Your task to perform on an android device: Add "rayovac triple a" to the cart on bestbuy.com Image 0: 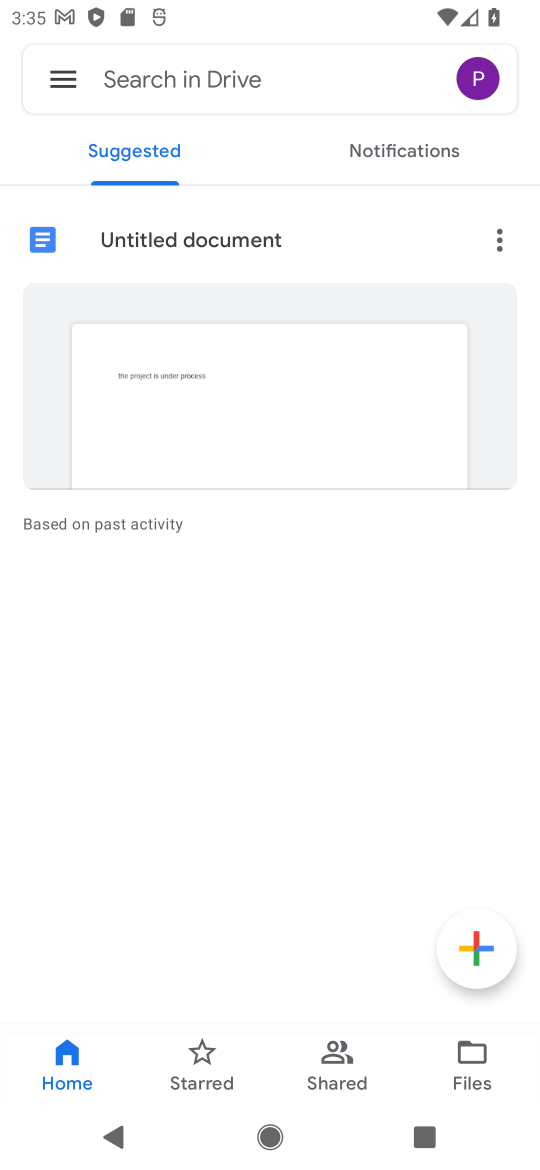
Step 0: press home button
Your task to perform on an android device: Add "rayovac triple a" to the cart on bestbuy.com Image 1: 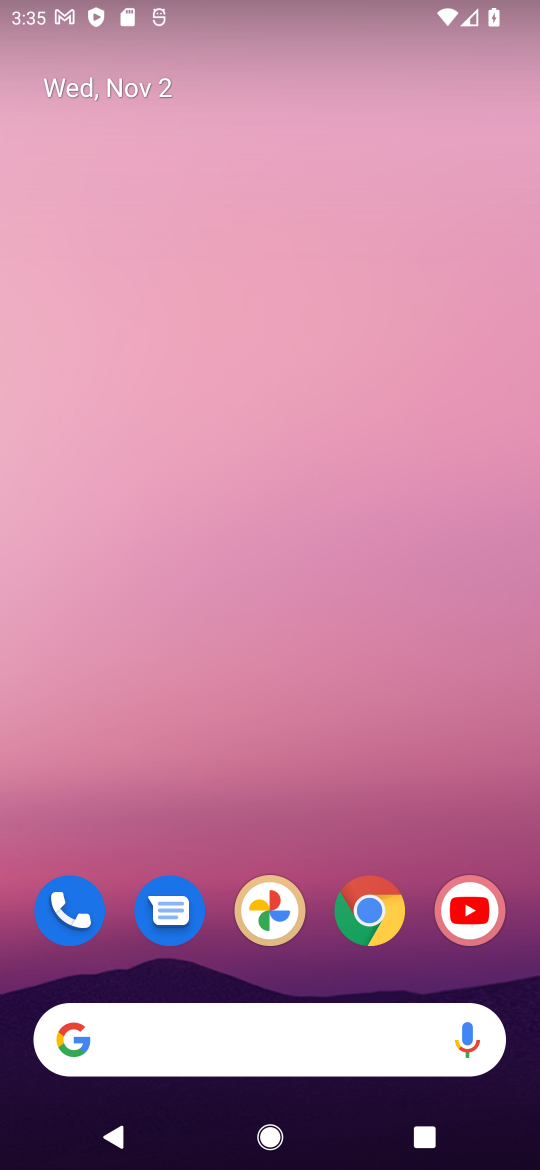
Step 1: click (363, 900)
Your task to perform on an android device: Add "rayovac triple a" to the cart on bestbuy.com Image 2: 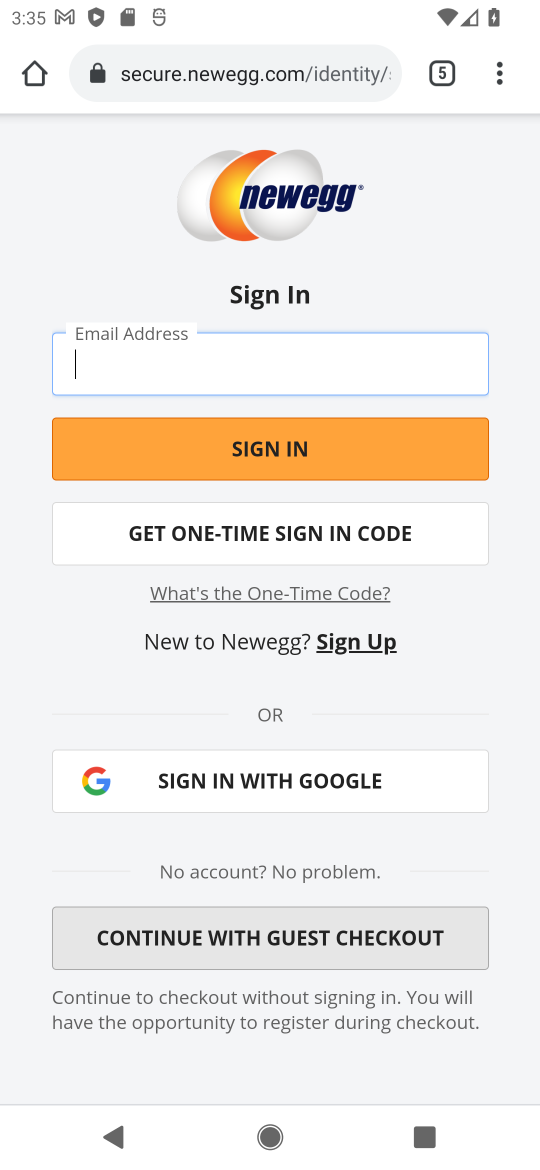
Step 2: click (444, 76)
Your task to perform on an android device: Add "rayovac triple a" to the cart on bestbuy.com Image 3: 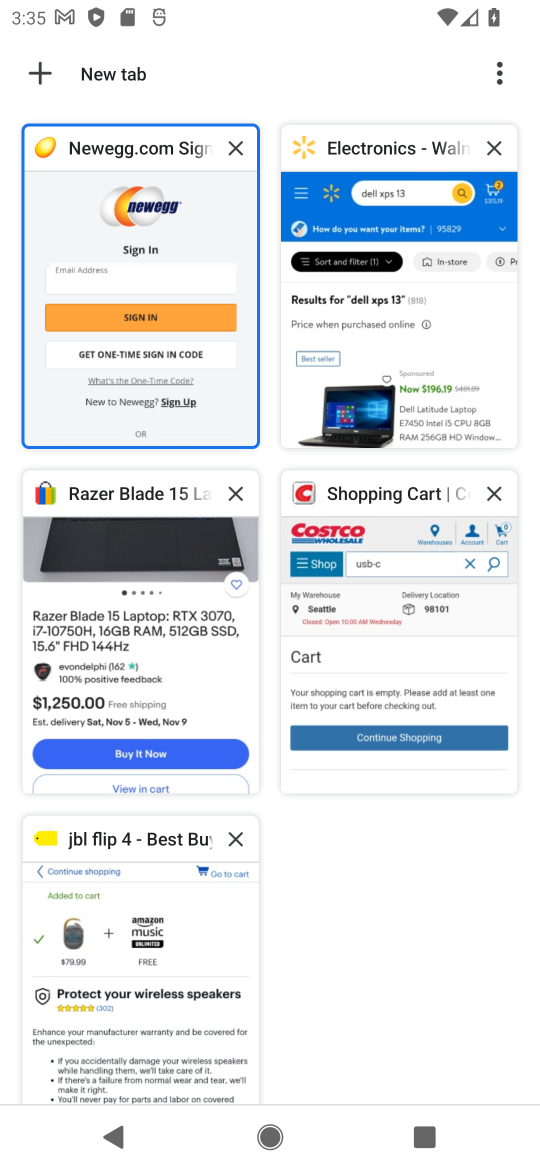
Step 3: click (121, 900)
Your task to perform on an android device: Add "rayovac triple a" to the cart on bestbuy.com Image 4: 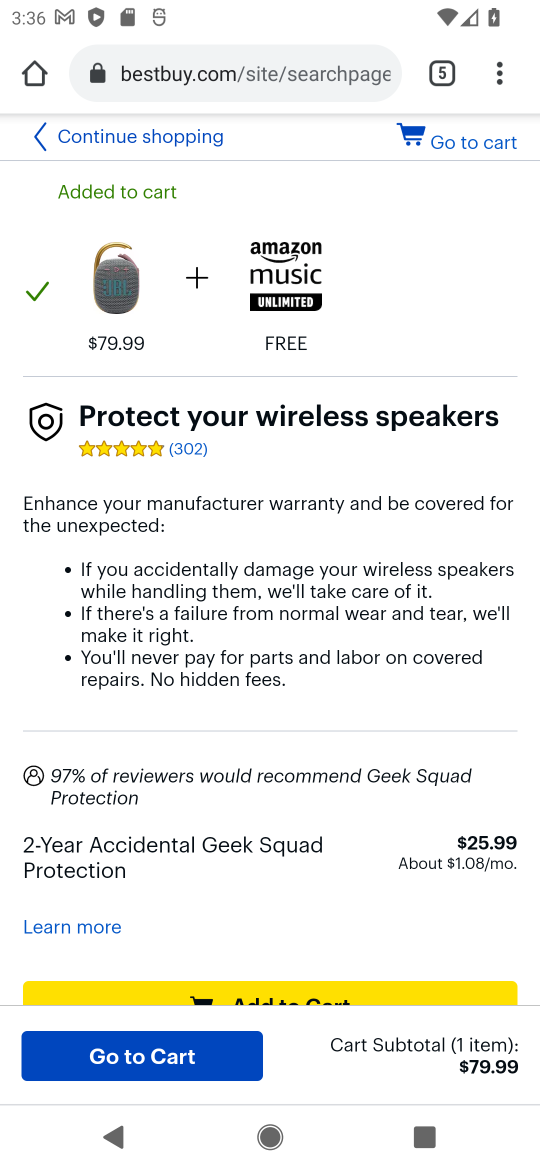
Step 4: click (166, 137)
Your task to perform on an android device: Add "rayovac triple a" to the cart on bestbuy.com Image 5: 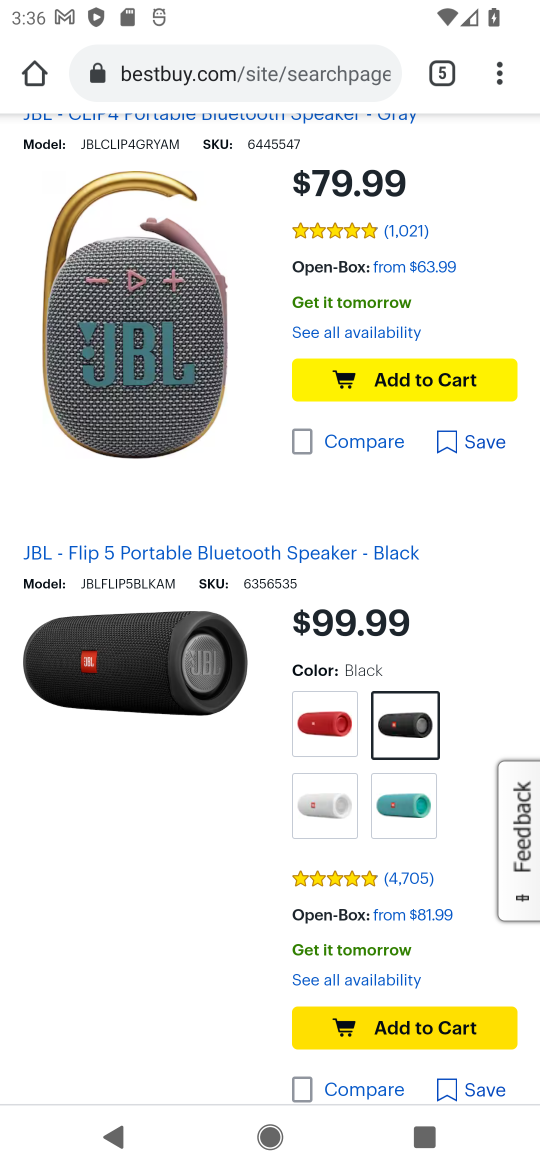
Step 5: drag from (472, 188) to (406, 1147)
Your task to perform on an android device: Add "rayovac triple a" to the cart on bestbuy.com Image 6: 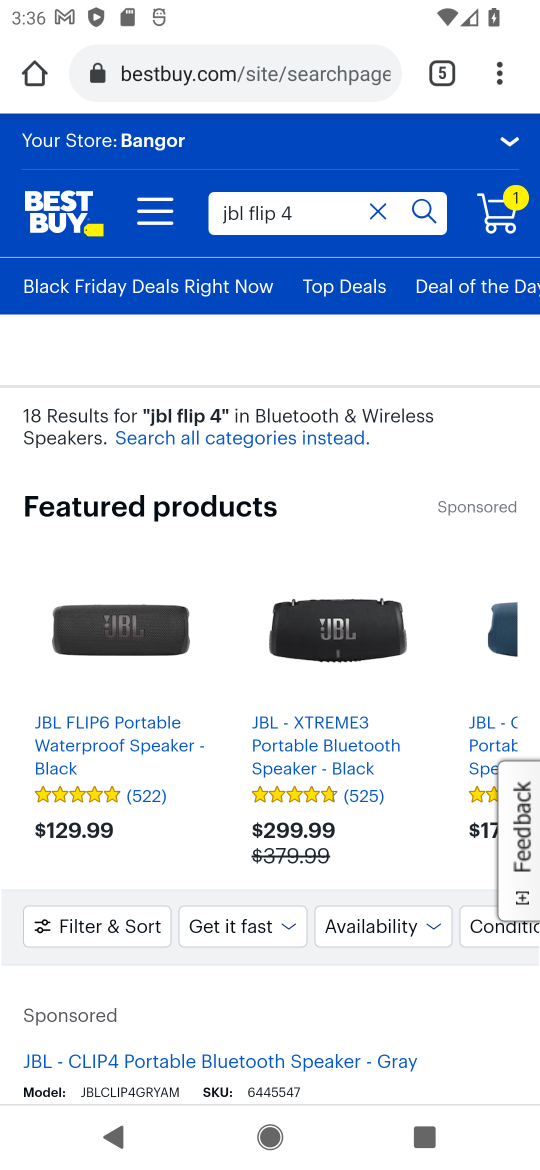
Step 6: click (378, 210)
Your task to perform on an android device: Add "rayovac triple a" to the cart on bestbuy.com Image 7: 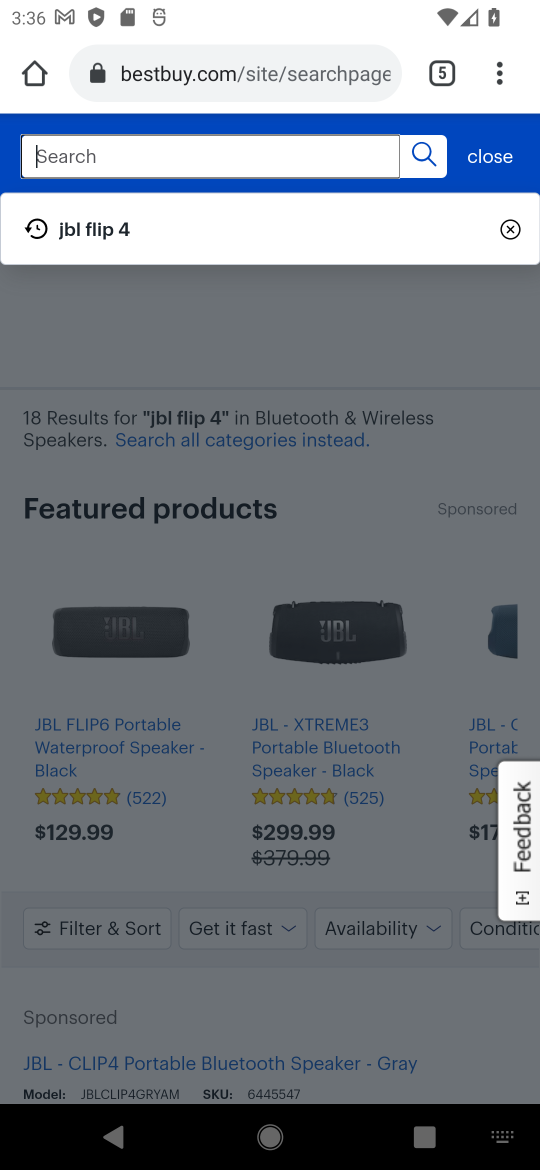
Step 7: type "rayovac triple a battery"
Your task to perform on an android device: Add "rayovac triple a" to the cart on bestbuy.com Image 8: 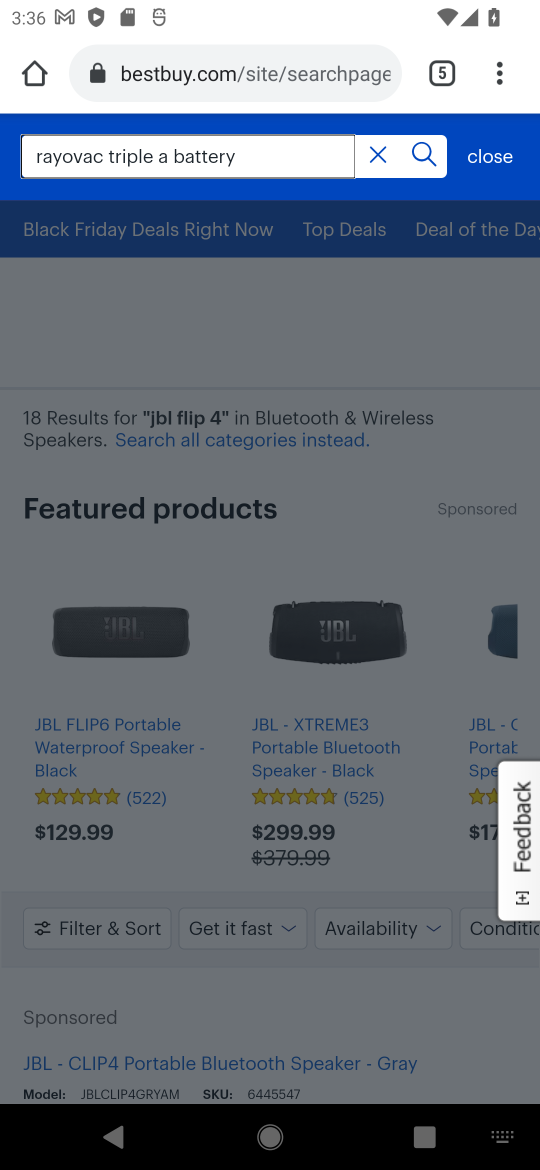
Step 8: click (419, 149)
Your task to perform on an android device: Add "rayovac triple a" to the cart on bestbuy.com Image 9: 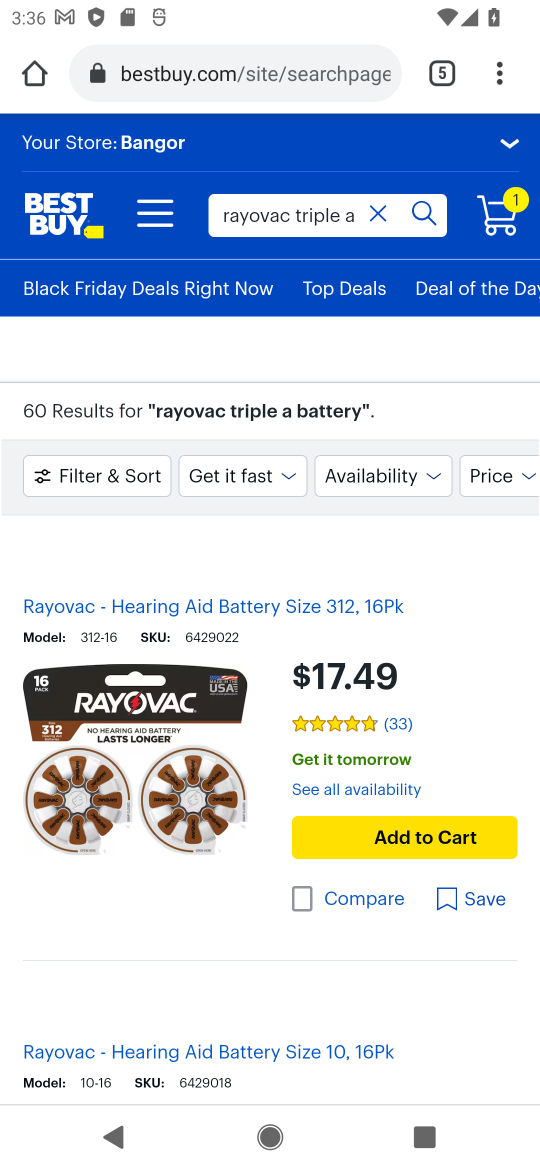
Step 9: click (406, 826)
Your task to perform on an android device: Add "rayovac triple a" to the cart on bestbuy.com Image 10: 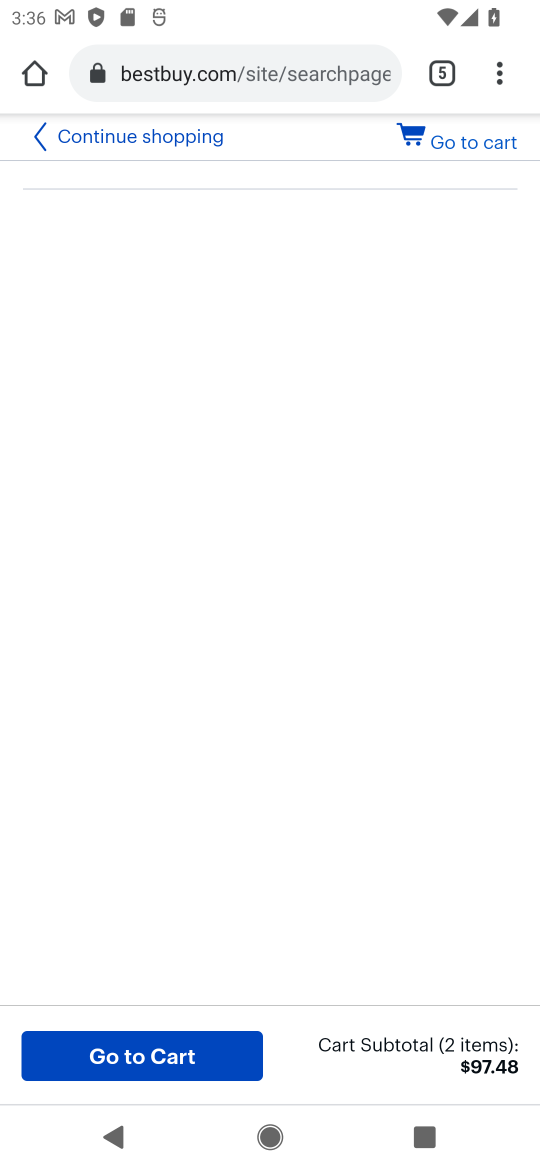
Step 10: task complete